Your task to perform on an android device: all mails in gmail Image 0: 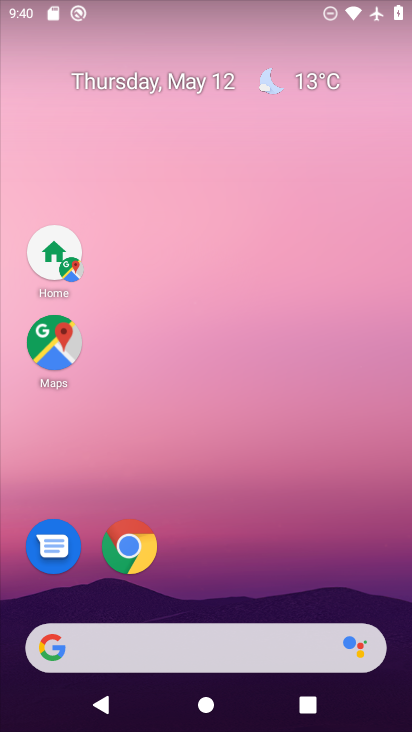
Step 0: drag from (221, 650) to (344, 196)
Your task to perform on an android device: all mails in gmail Image 1: 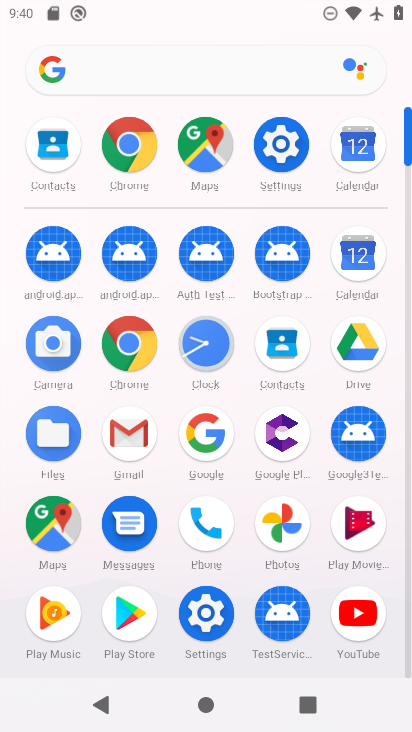
Step 1: click (129, 445)
Your task to perform on an android device: all mails in gmail Image 2: 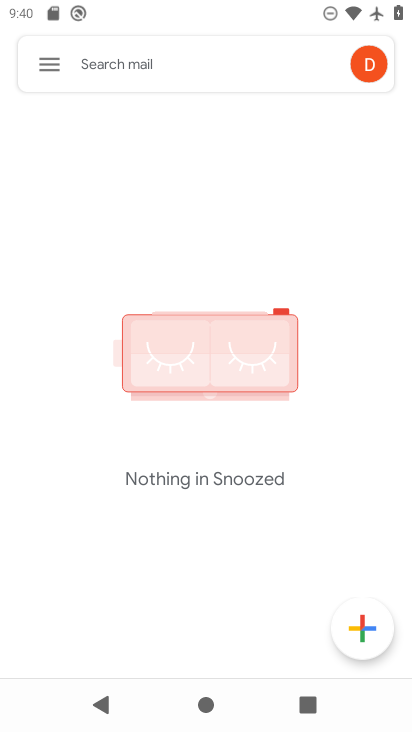
Step 2: click (52, 65)
Your task to perform on an android device: all mails in gmail Image 3: 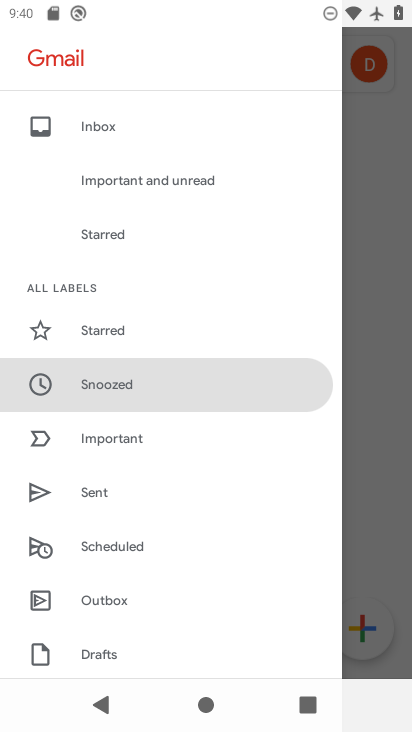
Step 3: drag from (164, 603) to (233, 247)
Your task to perform on an android device: all mails in gmail Image 4: 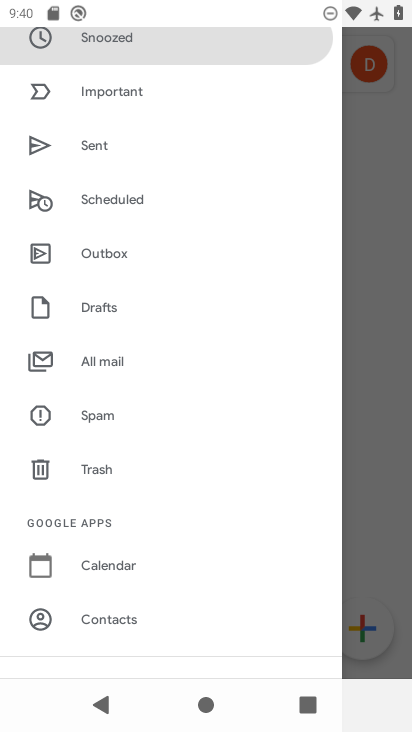
Step 4: click (116, 366)
Your task to perform on an android device: all mails in gmail Image 5: 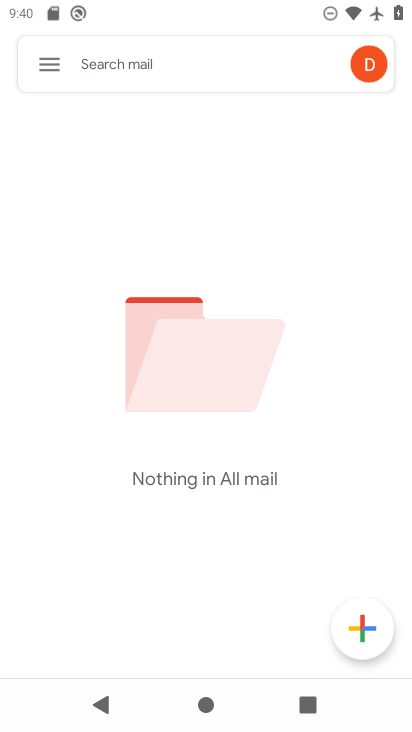
Step 5: task complete